Your task to perform on an android device: Turn off the flashlight Image 0: 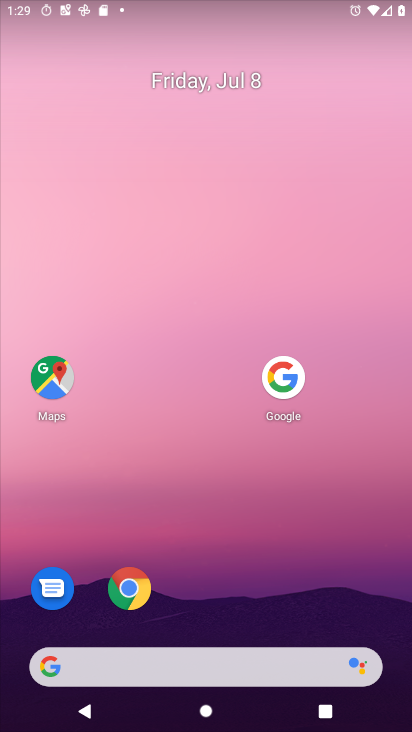
Step 0: drag from (268, 4) to (215, 446)
Your task to perform on an android device: Turn off the flashlight Image 1: 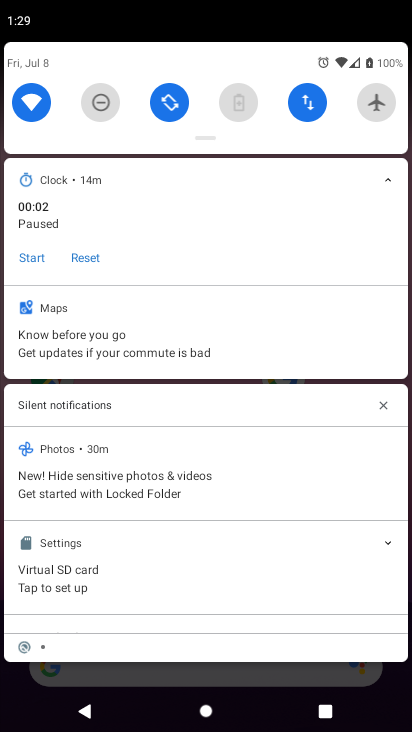
Step 1: task complete